Your task to perform on an android device: change timer sound Image 0: 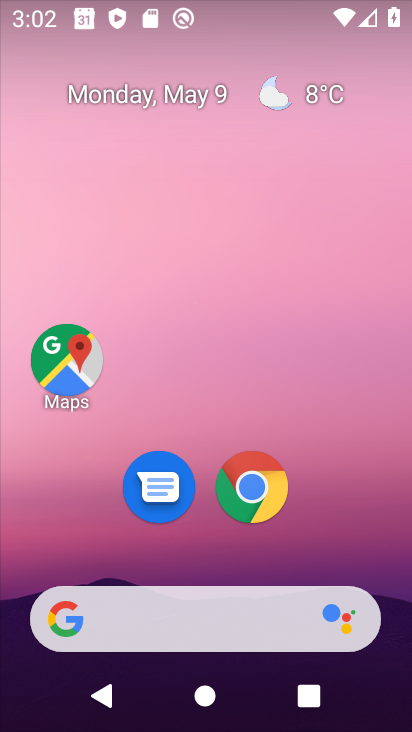
Step 0: drag from (312, 536) to (312, 100)
Your task to perform on an android device: change timer sound Image 1: 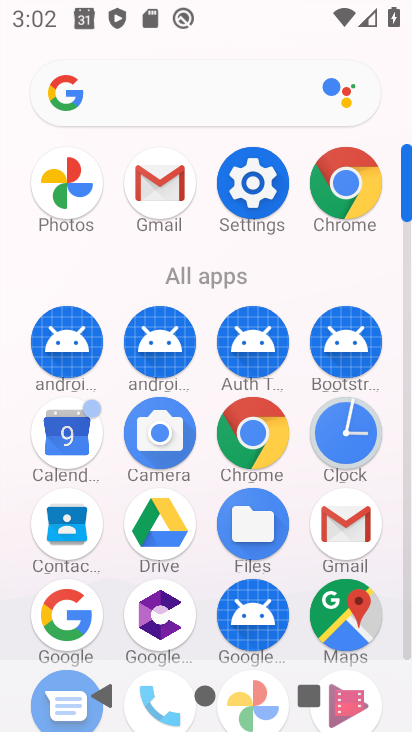
Step 1: click (343, 424)
Your task to perform on an android device: change timer sound Image 2: 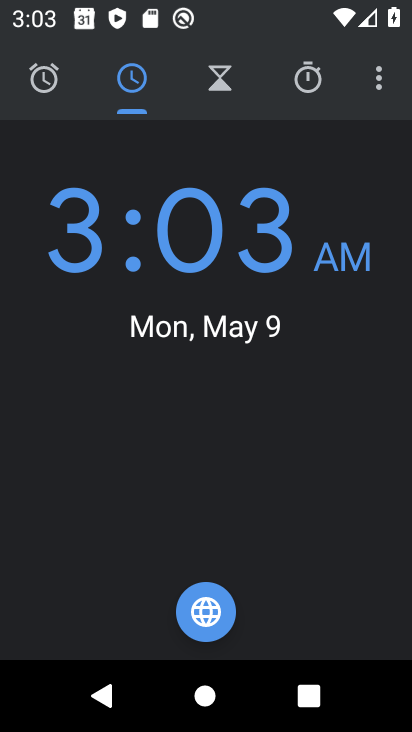
Step 2: click (376, 77)
Your task to perform on an android device: change timer sound Image 3: 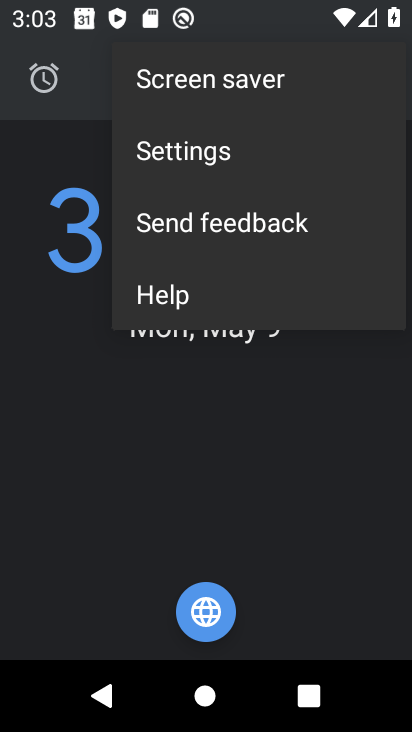
Step 3: click (243, 148)
Your task to perform on an android device: change timer sound Image 4: 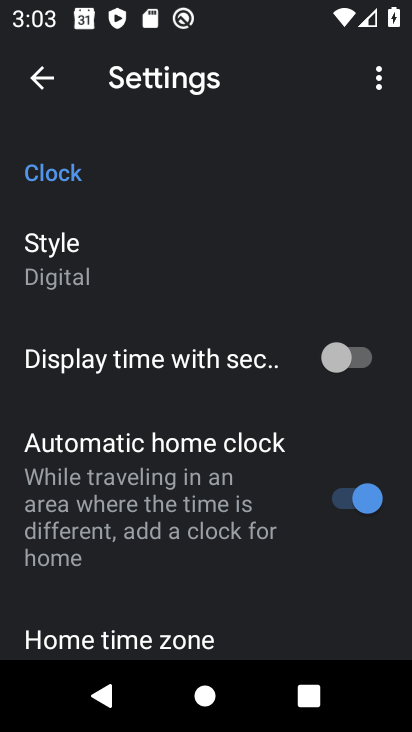
Step 4: drag from (227, 608) to (221, 182)
Your task to perform on an android device: change timer sound Image 5: 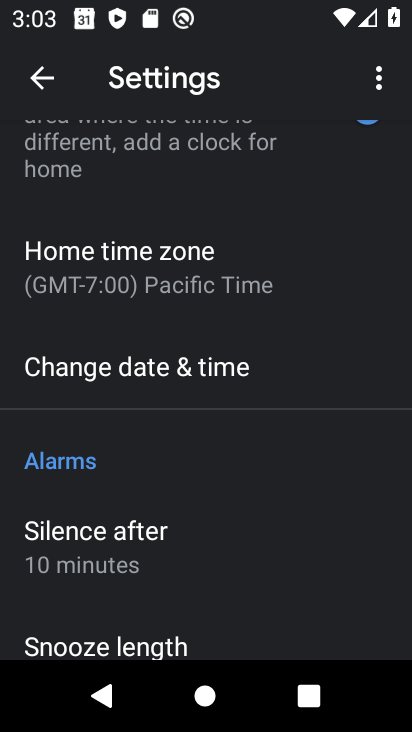
Step 5: drag from (223, 614) to (216, 269)
Your task to perform on an android device: change timer sound Image 6: 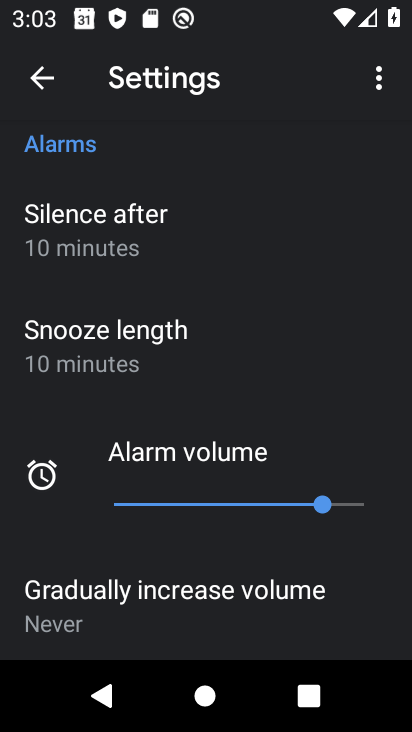
Step 6: drag from (231, 604) to (209, 251)
Your task to perform on an android device: change timer sound Image 7: 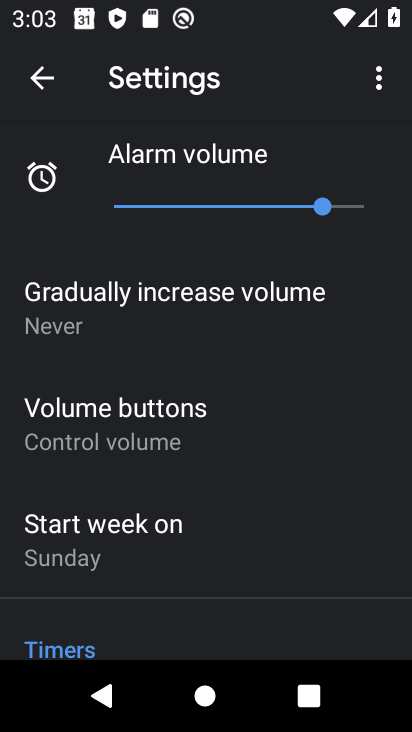
Step 7: drag from (155, 625) to (147, 257)
Your task to perform on an android device: change timer sound Image 8: 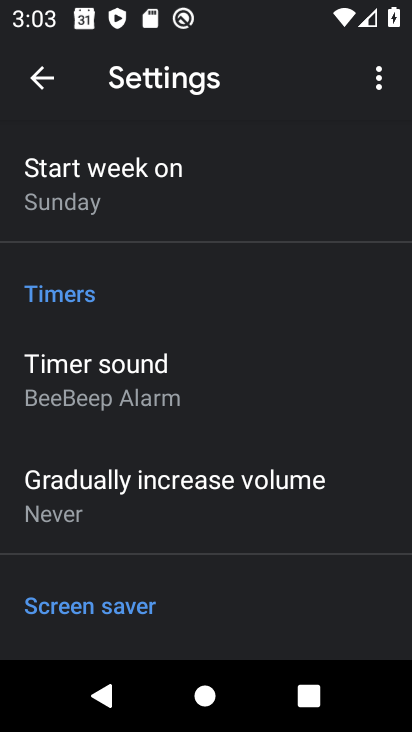
Step 8: click (192, 384)
Your task to perform on an android device: change timer sound Image 9: 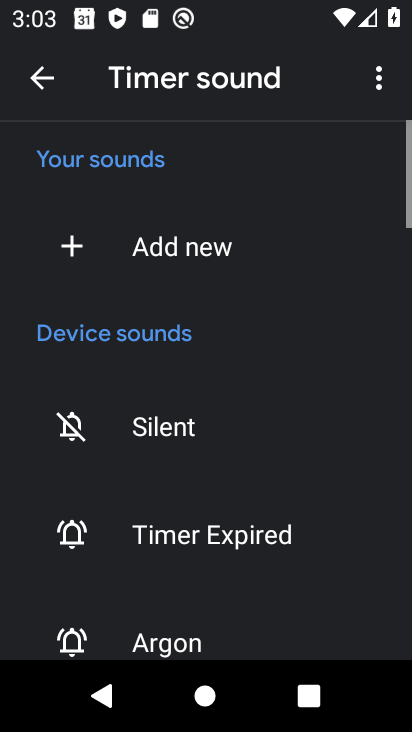
Step 9: drag from (222, 605) to (222, 332)
Your task to perform on an android device: change timer sound Image 10: 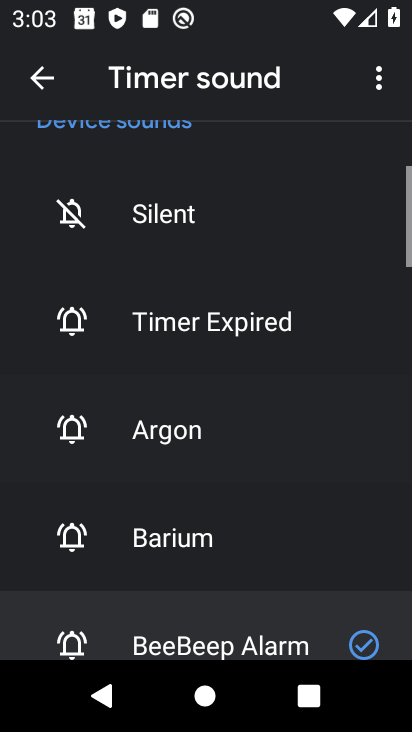
Step 10: drag from (225, 238) to (225, 143)
Your task to perform on an android device: change timer sound Image 11: 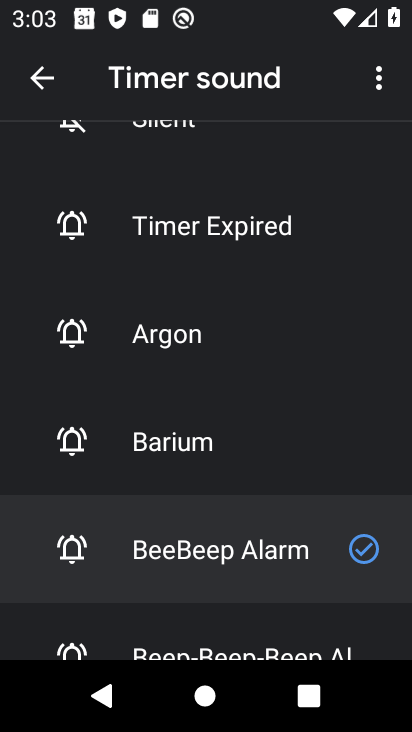
Step 11: drag from (230, 601) to (222, 301)
Your task to perform on an android device: change timer sound Image 12: 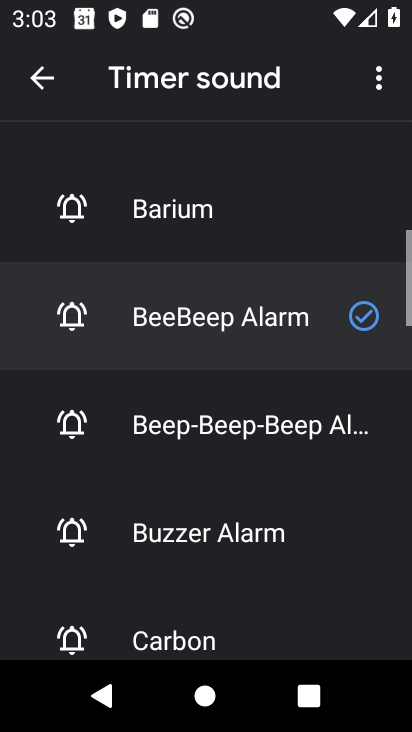
Step 12: click (218, 218)
Your task to perform on an android device: change timer sound Image 13: 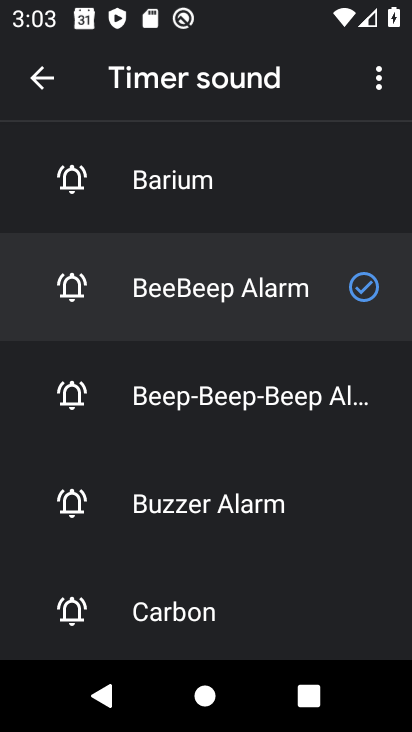
Step 13: click (236, 602)
Your task to perform on an android device: change timer sound Image 14: 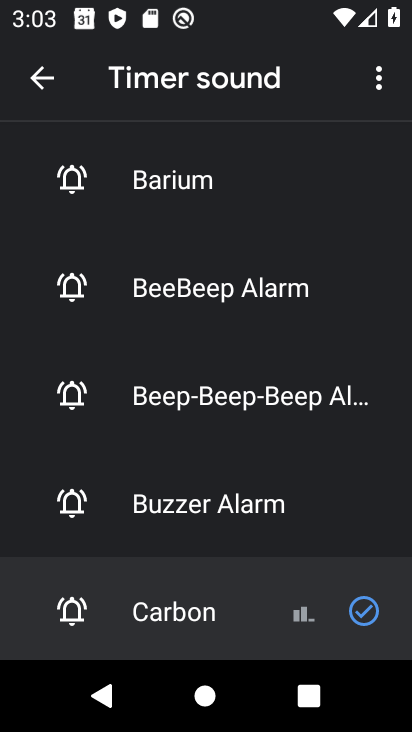
Step 14: task complete